Your task to perform on an android device: Search for Italian restaurants on Maps Image 0: 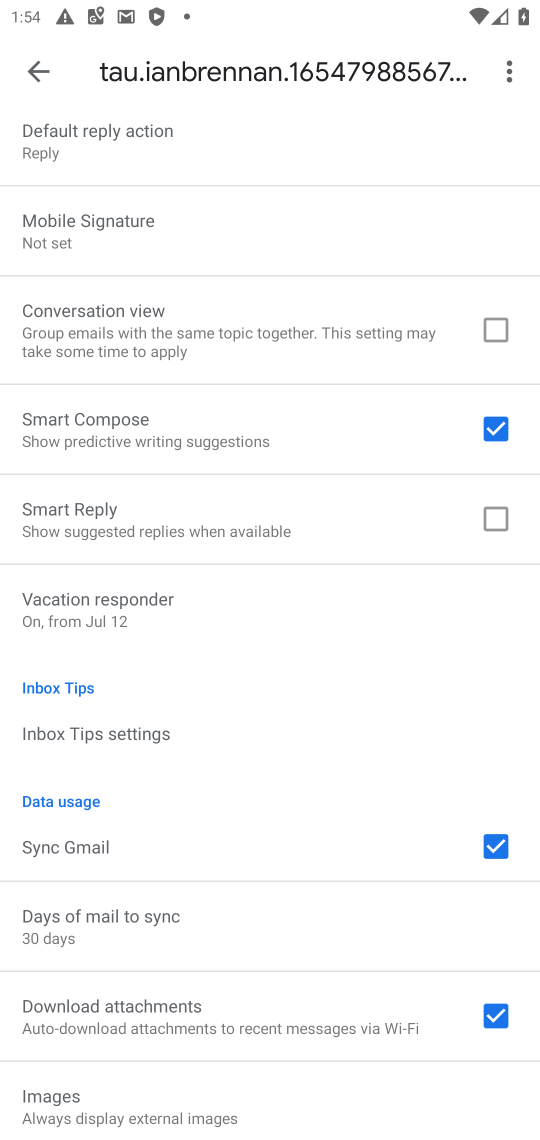
Step 0: press home button
Your task to perform on an android device: Search for Italian restaurants on Maps Image 1: 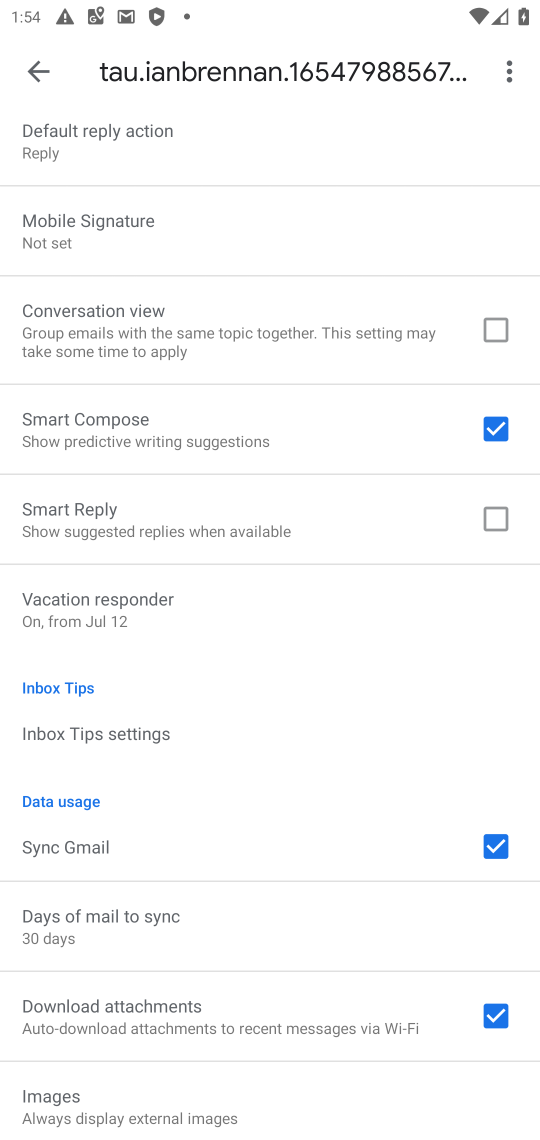
Step 1: press home button
Your task to perform on an android device: Search for Italian restaurants on Maps Image 2: 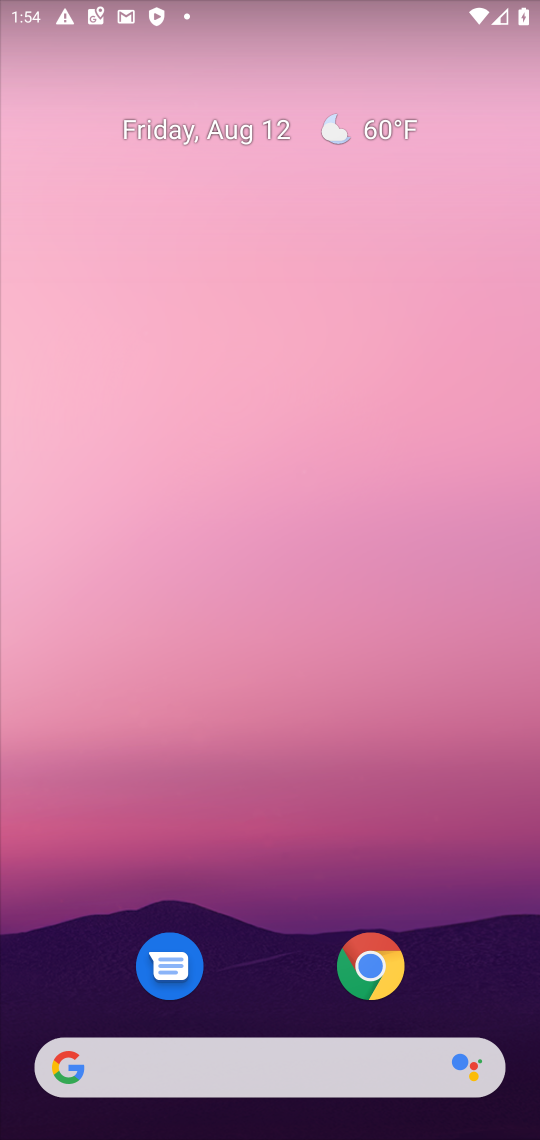
Step 2: drag from (285, 864) to (293, 35)
Your task to perform on an android device: Search for Italian restaurants on Maps Image 3: 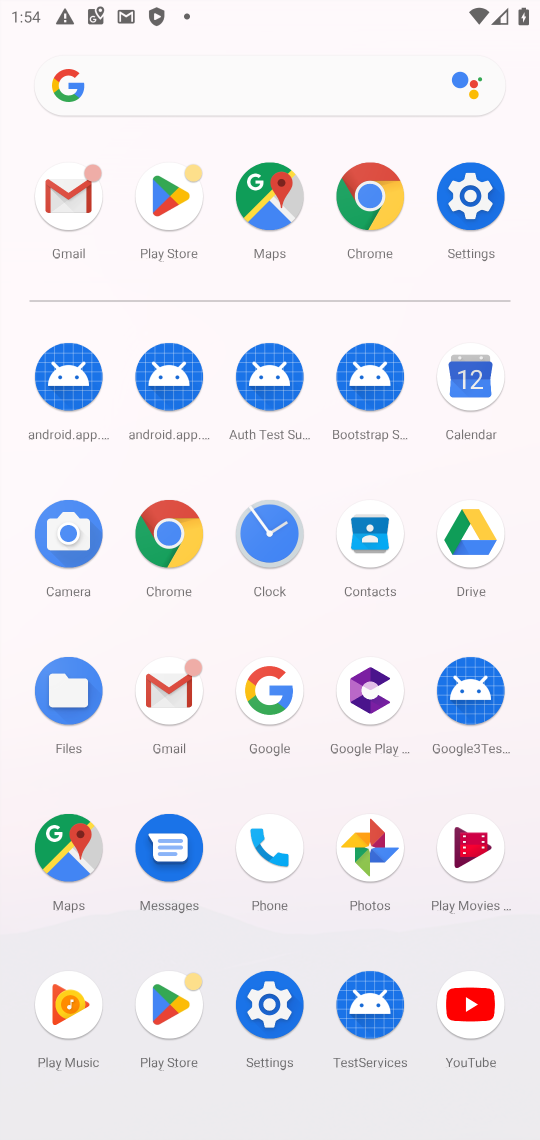
Step 3: click (61, 855)
Your task to perform on an android device: Search for Italian restaurants on Maps Image 4: 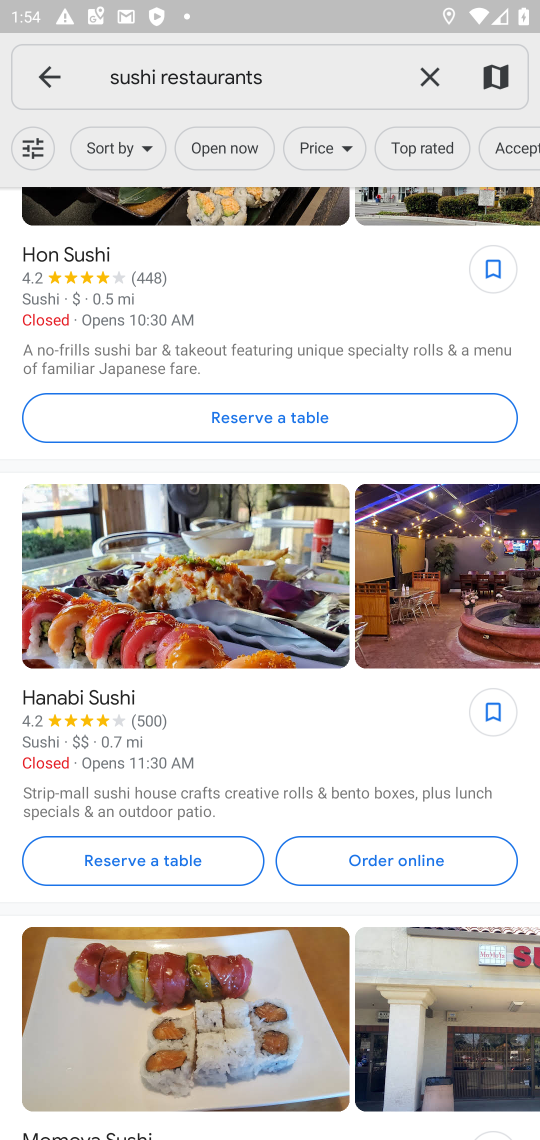
Step 4: click (428, 76)
Your task to perform on an android device: Search for Italian restaurants on Maps Image 5: 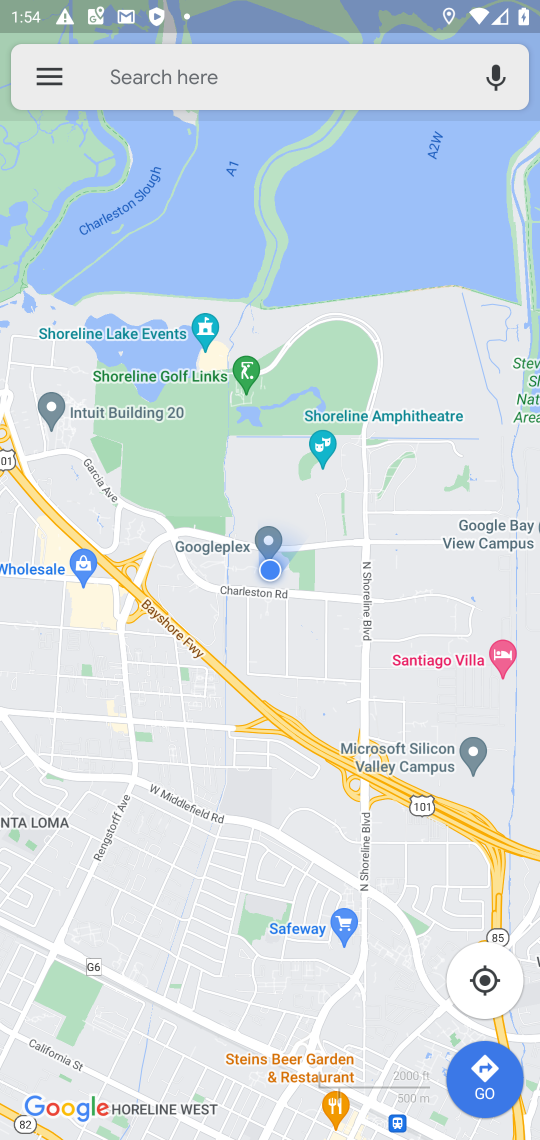
Step 5: click (380, 79)
Your task to perform on an android device: Search for Italian restaurants on Maps Image 6: 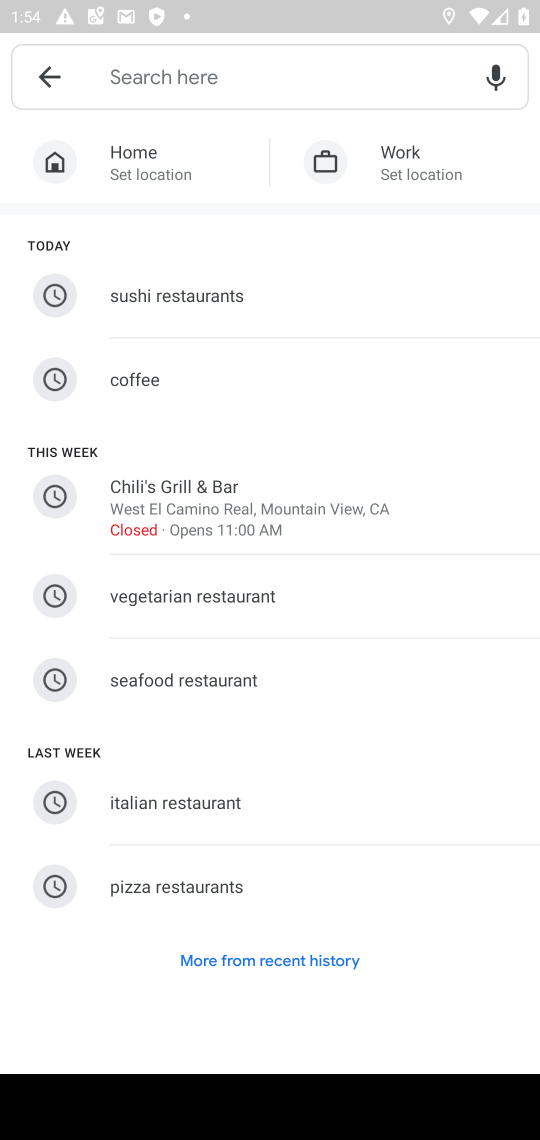
Step 6: type "italian restaurants"
Your task to perform on an android device: Search for Italian restaurants on Maps Image 7: 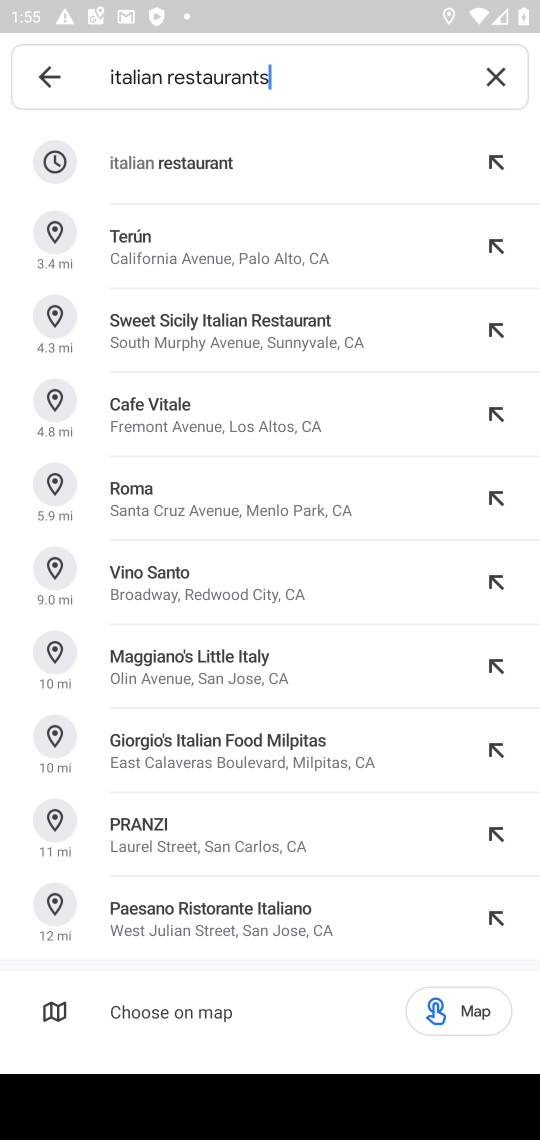
Step 7: press enter
Your task to perform on an android device: Search for Italian restaurants on Maps Image 8: 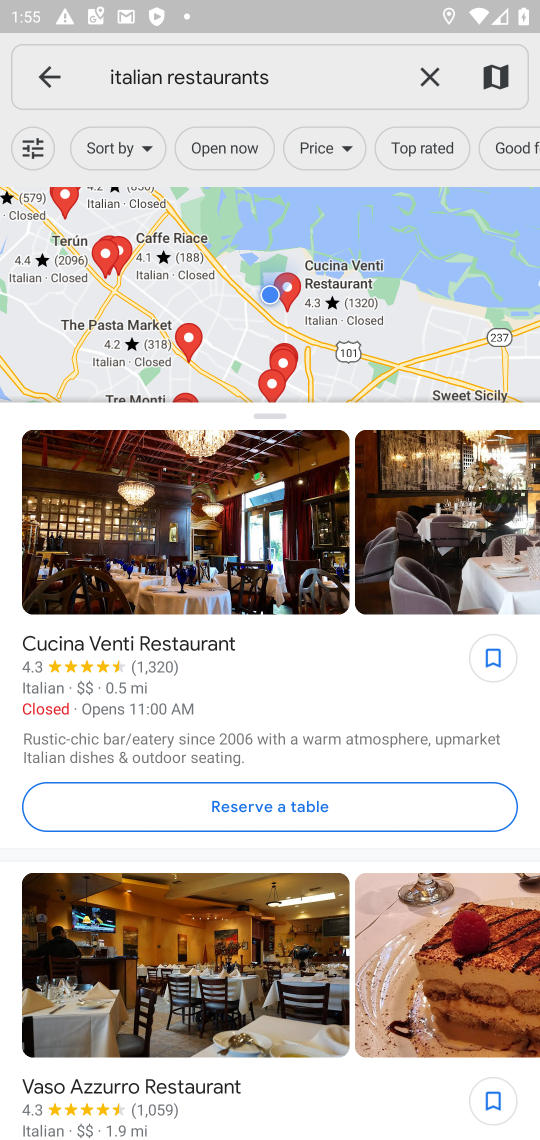
Step 8: task complete